Your task to perform on an android device: Open the Play Movies app and select the watchlist tab. Image 0: 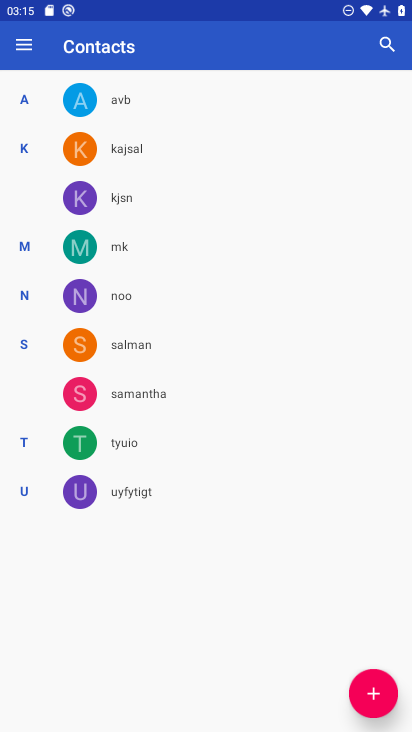
Step 0: press home button
Your task to perform on an android device: Open the Play Movies app and select the watchlist tab. Image 1: 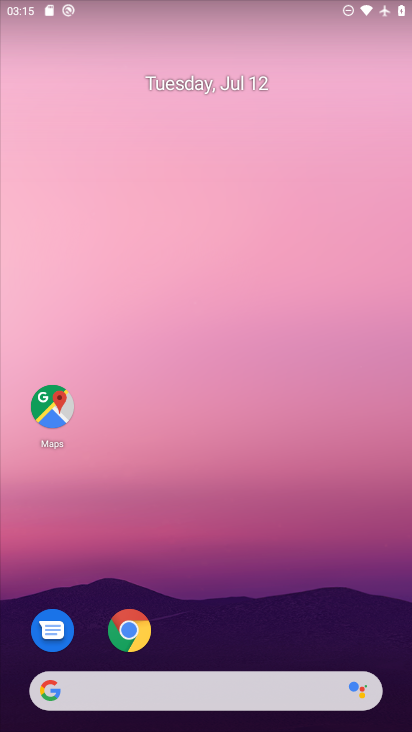
Step 1: drag from (384, 627) to (320, 39)
Your task to perform on an android device: Open the Play Movies app and select the watchlist tab. Image 2: 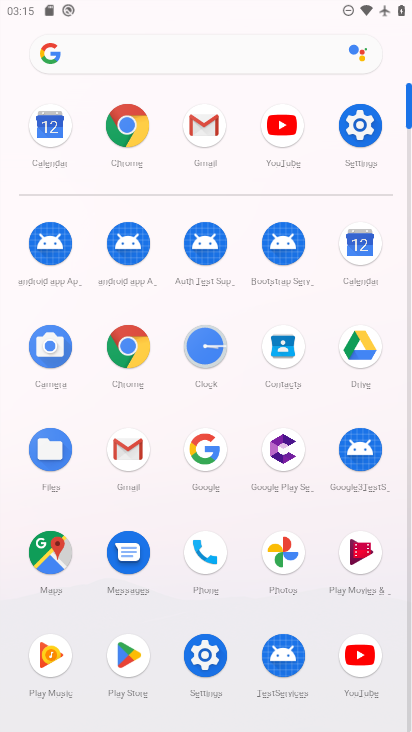
Step 2: click (361, 551)
Your task to perform on an android device: Open the Play Movies app and select the watchlist tab. Image 3: 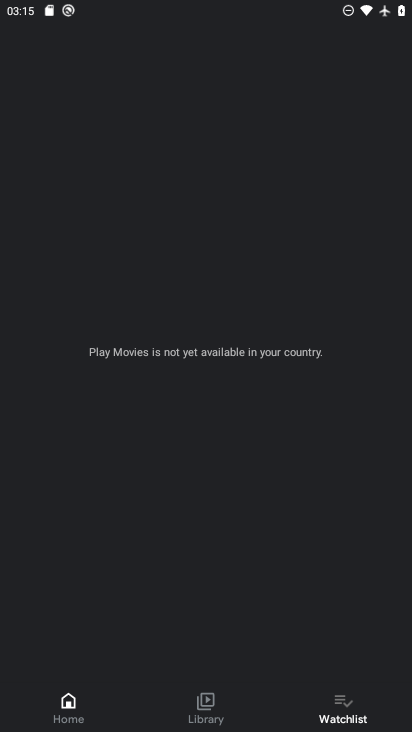
Step 3: click (342, 704)
Your task to perform on an android device: Open the Play Movies app and select the watchlist tab. Image 4: 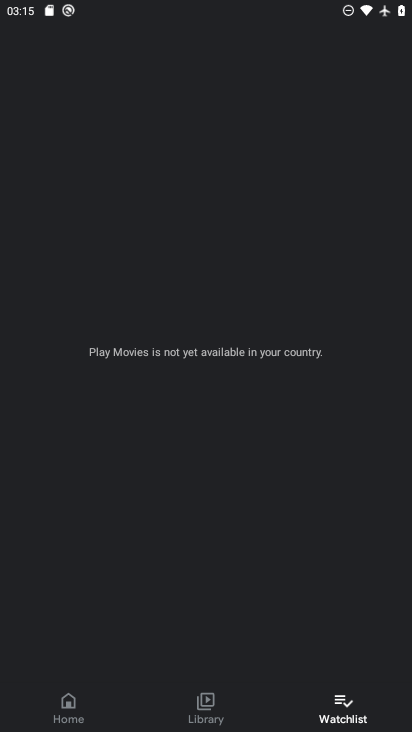
Step 4: task complete